Your task to perform on an android device: uninstall "Microsoft Outlook" Image 0: 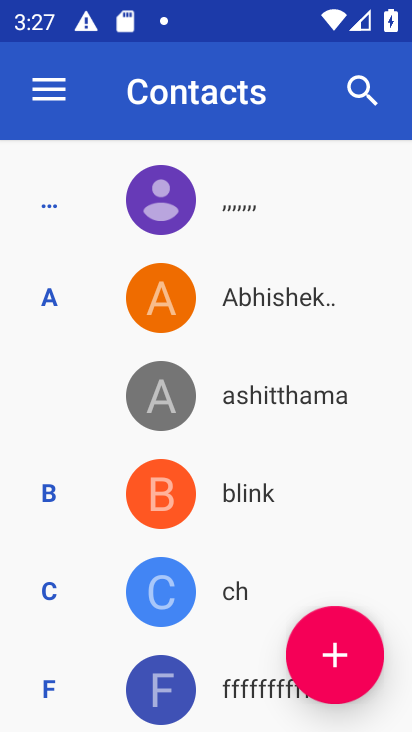
Step 0: press home button
Your task to perform on an android device: uninstall "Microsoft Outlook" Image 1: 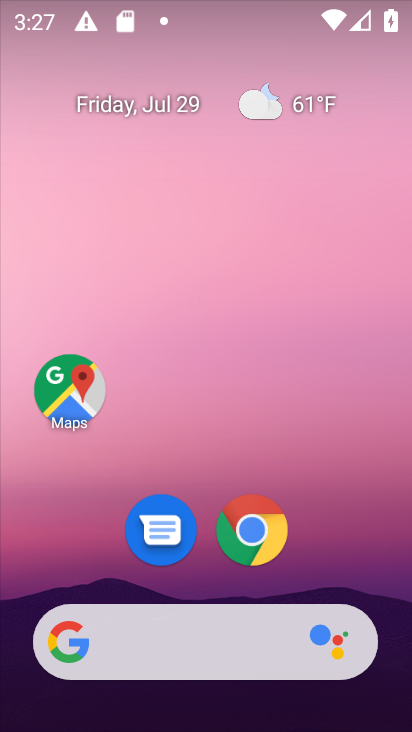
Step 1: drag from (337, 414) to (309, 0)
Your task to perform on an android device: uninstall "Microsoft Outlook" Image 2: 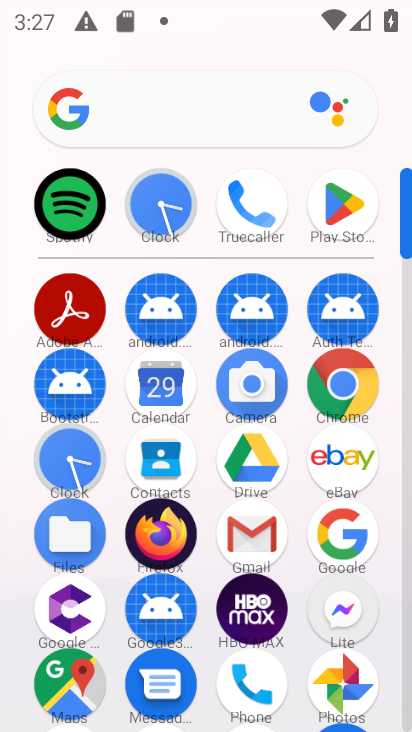
Step 2: click (342, 214)
Your task to perform on an android device: uninstall "Microsoft Outlook" Image 3: 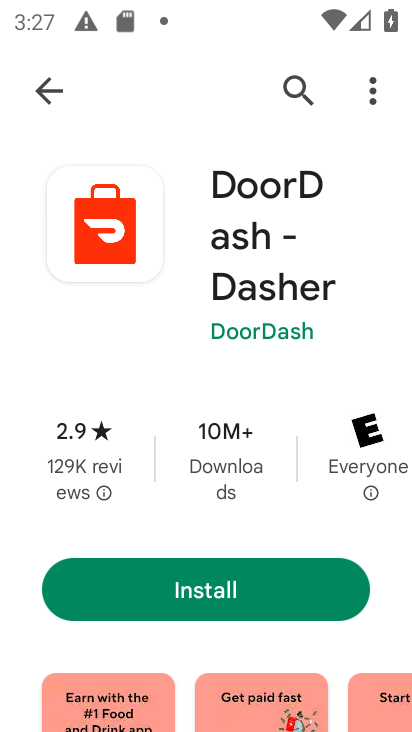
Step 3: click (287, 93)
Your task to perform on an android device: uninstall "Microsoft Outlook" Image 4: 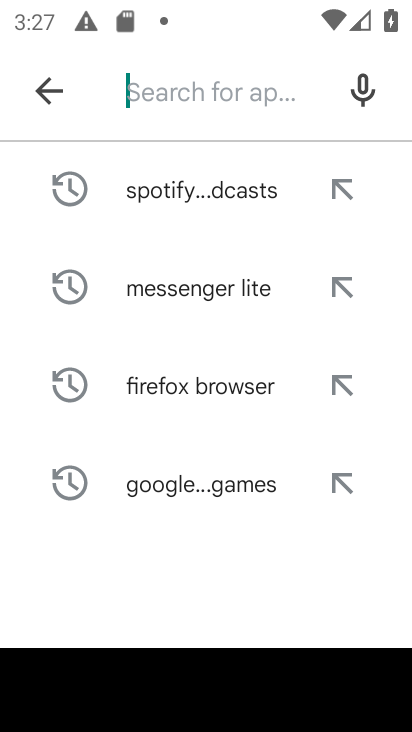
Step 4: type "Microsoft Outlook"
Your task to perform on an android device: uninstall "Microsoft Outlook" Image 5: 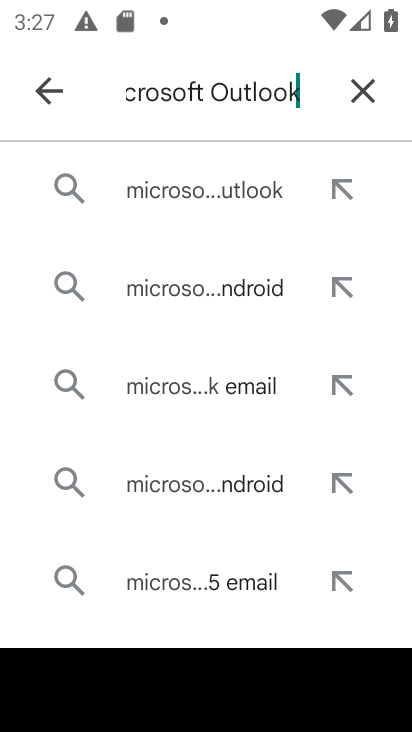
Step 5: click (190, 193)
Your task to perform on an android device: uninstall "Microsoft Outlook" Image 6: 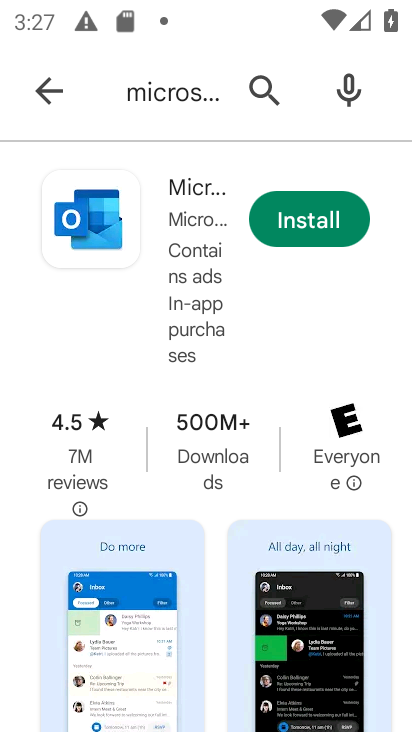
Step 6: task complete